Your task to perform on an android device: toggle show notifications on the lock screen Image 0: 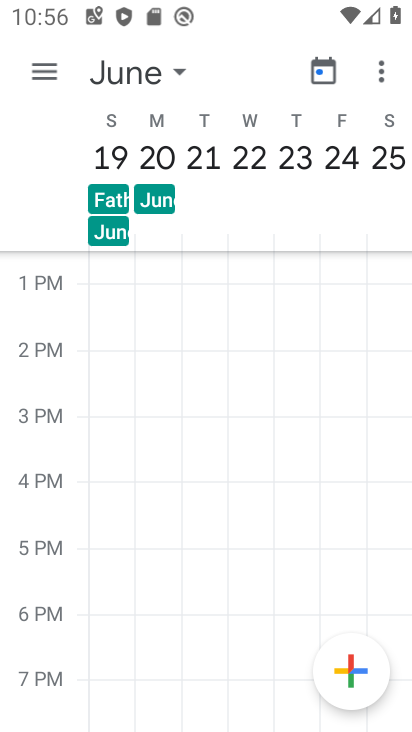
Step 0: press home button
Your task to perform on an android device: toggle show notifications on the lock screen Image 1: 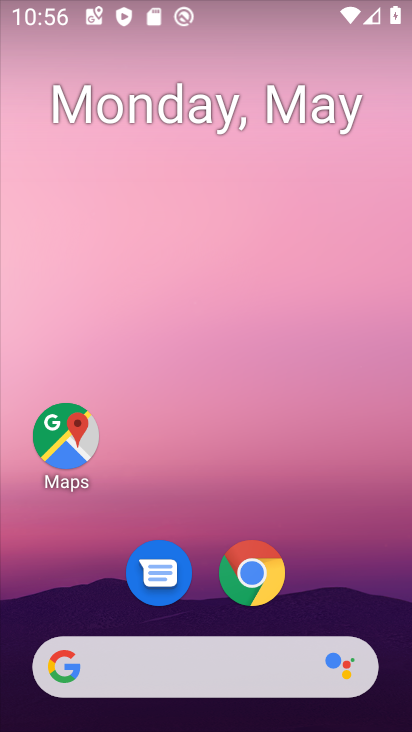
Step 1: drag from (326, 426) to (276, 32)
Your task to perform on an android device: toggle show notifications on the lock screen Image 2: 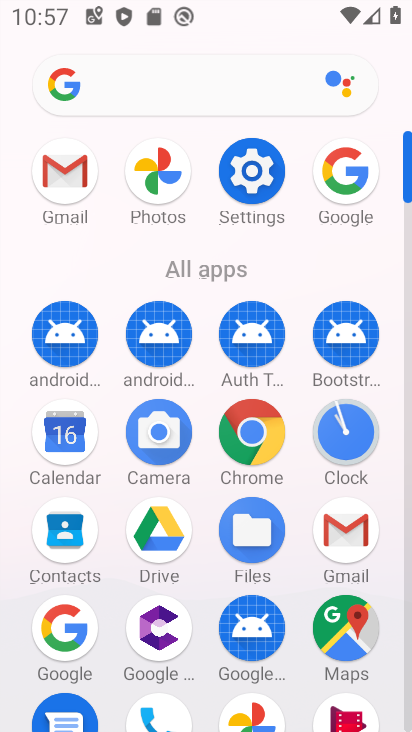
Step 2: click (248, 182)
Your task to perform on an android device: toggle show notifications on the lock screen Image 3: 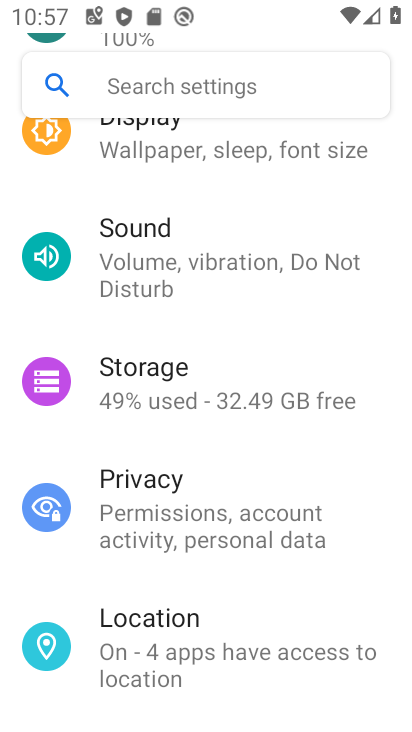
Step 3: drag from (232, 211) to (194, 649)
Your task to perform on an android device: toggle show notifications on the lock screen Image 4: 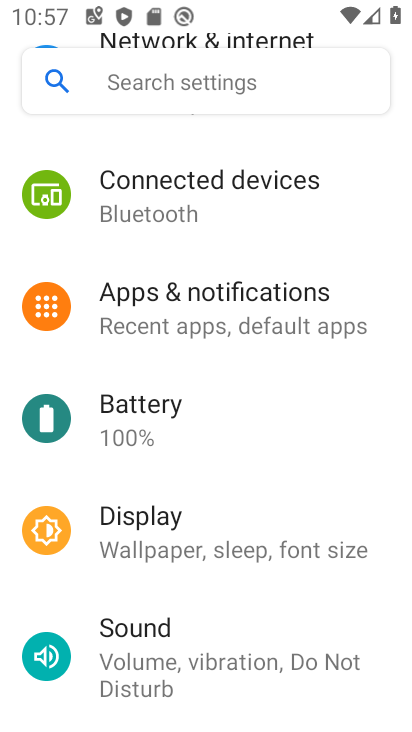
Step 4: click (214, 282)
Your task to perform on an android device: toggle show notifications on the lock screen Image 5: 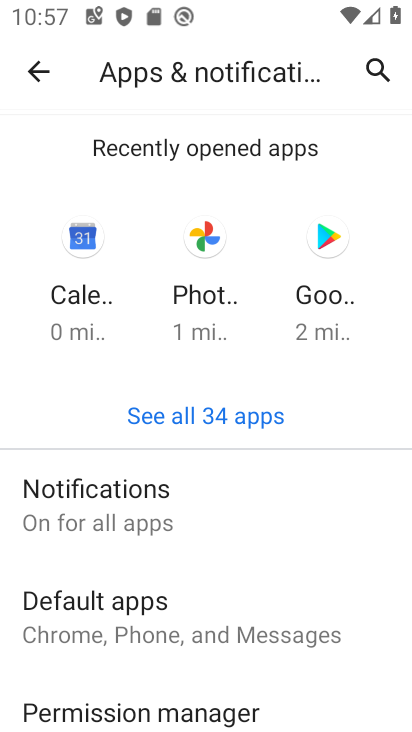
Step 5: click (212, 490)
Your task to perform on an android device: toggle show notifications on the lock screen Image 6: 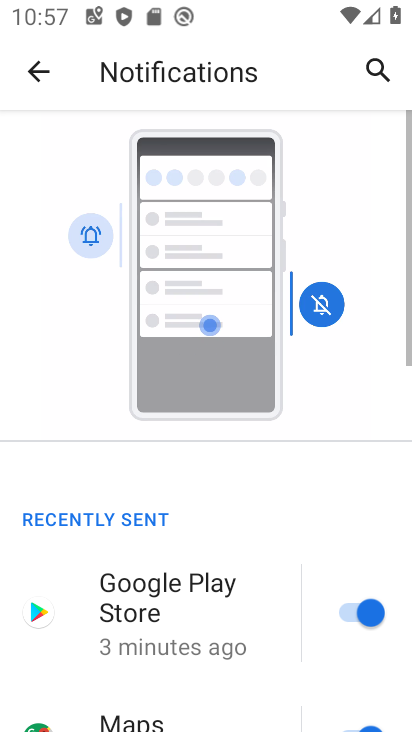
Step 6: drag from (285, 593) to (241, 148)
Your task to perform on an android device: toggle show notifications on the lock screen Image 7: 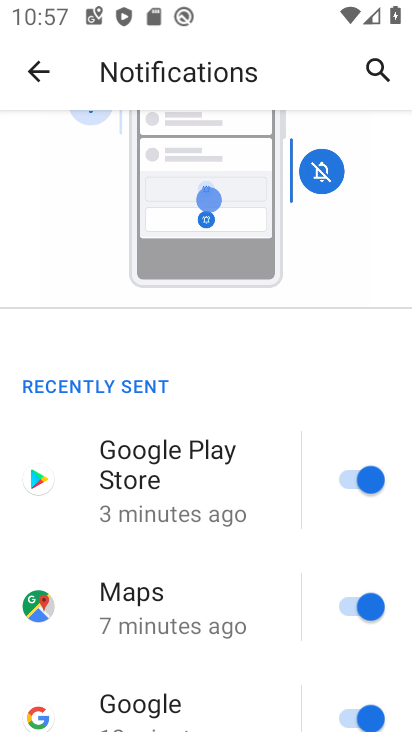
Step 7: drag from (186, 611) to (202, 184)
Your task to perform on an android device: toggle show notifications on the lock screen Image 8: 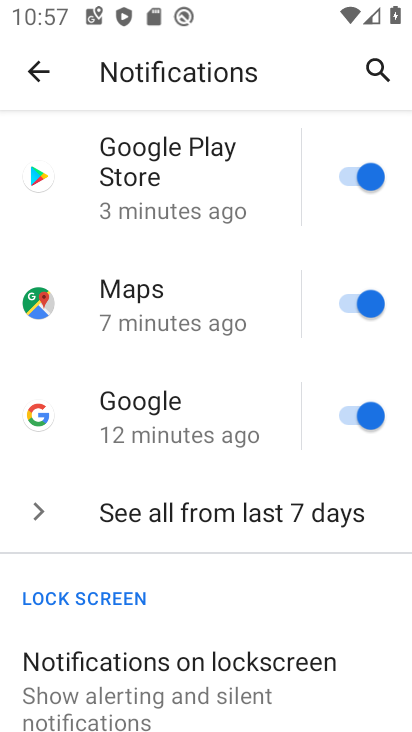
Step 8: click (178, 643)
Your task to perform on an android device: toggle show notifications on the lock screen Image 9: 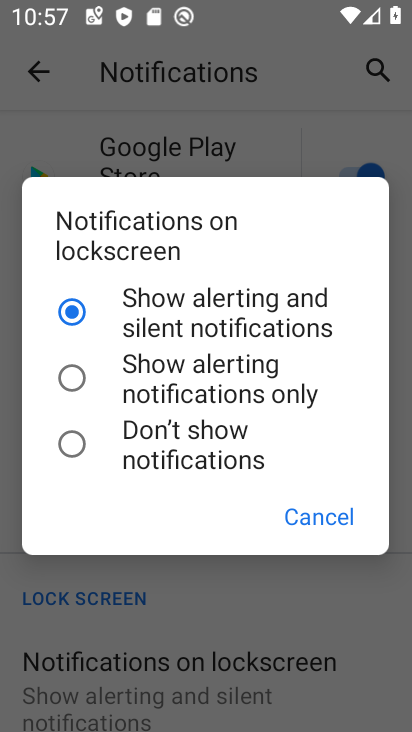
Step 9: click (147, 449)
Your task to perform on an android device: toggle show notifications on the lock screen Image 10: 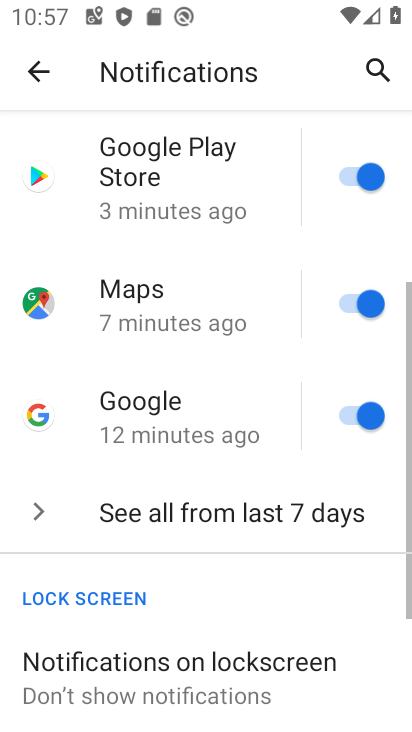
Step 10: task complete